Your task to perform on an android device: Open the calendar and show me this week's events? Image 0: 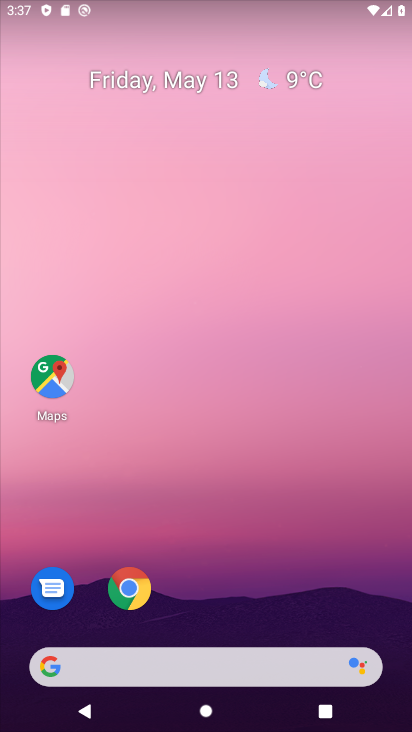
Step 0: drag from (176, 635) to (271, 172)
Your task to perform on an android device: Open the calendar and show me this week's events? Image 1: 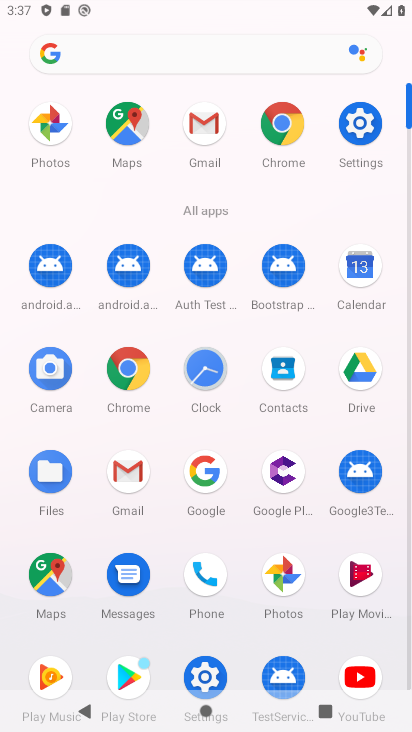
Step 1: click (358, 281)
Your task to perform on an android device: Open the calendar and show me this week's events? Image 2: 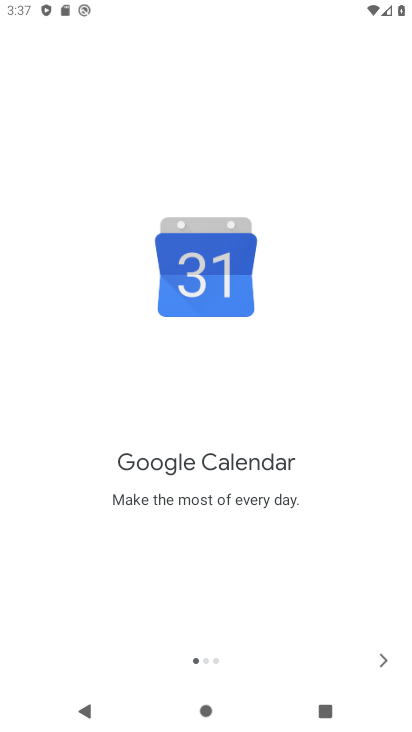
Step 2: click (390, 675)
Your task to perform on an android device: Open the calendar and show me this week's events? Image 3: 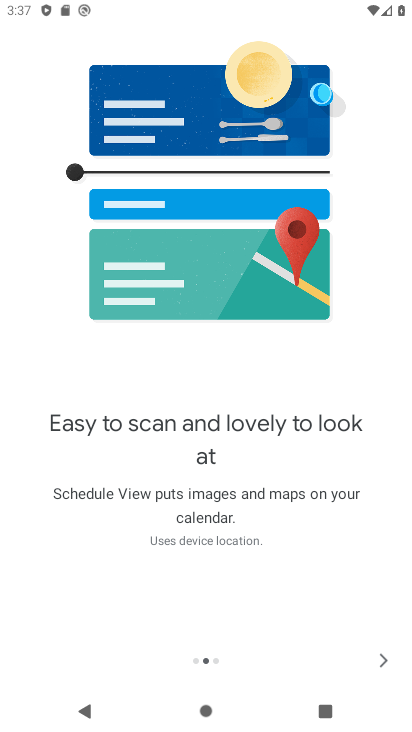
Step 3: click (387, 672)
Your task to perform on an android device: Open the calendar and show me this week's events? Image 4: 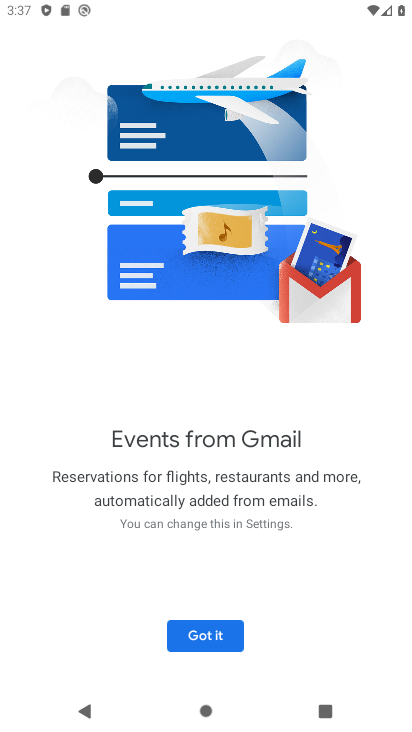
Step 4: click (225, 639)
Your task to perform on an android device: Open the calendar and show me this week's events? Image 5: 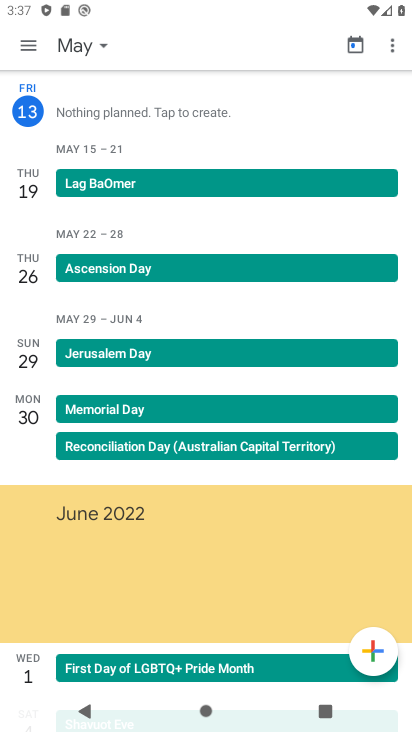
Step 5: click (42, 48)
Your task to perform on an android device: Open the calendar and show me this week's events? Image 6: 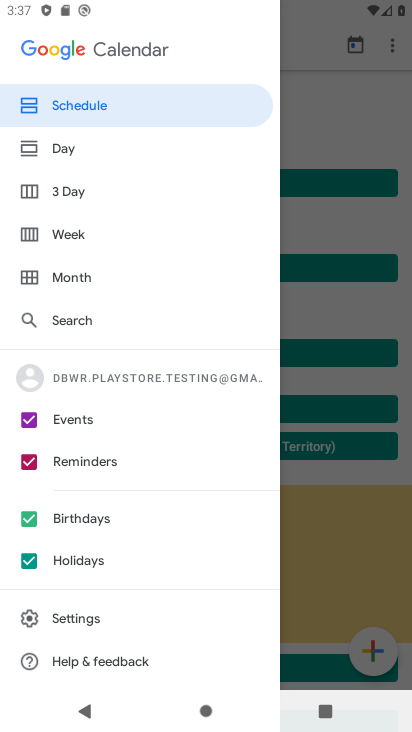
Step 6: click (121, 244)
Your task to perform on an android device: Open the calendar and show me this week's events? Image 7: 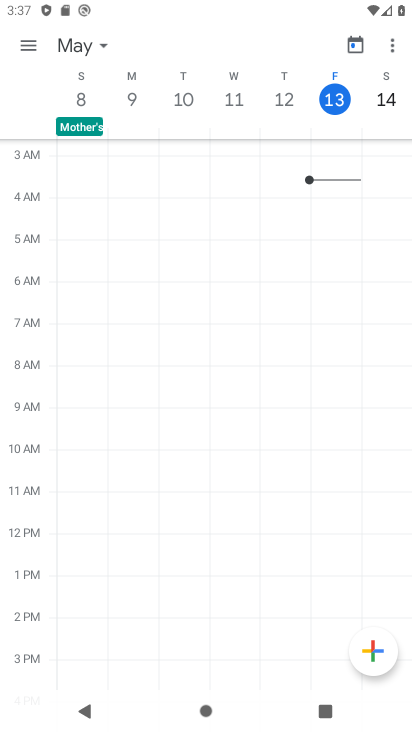
Step 7: task complete